Your task to perform on an android device: Go to CNN.com Image 0: 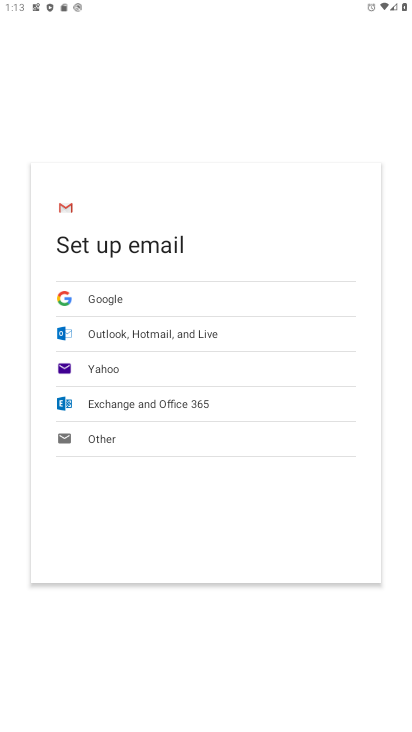
Step 0: press home button
Your task to perform on an android device: Go to CNN.com Image 1: 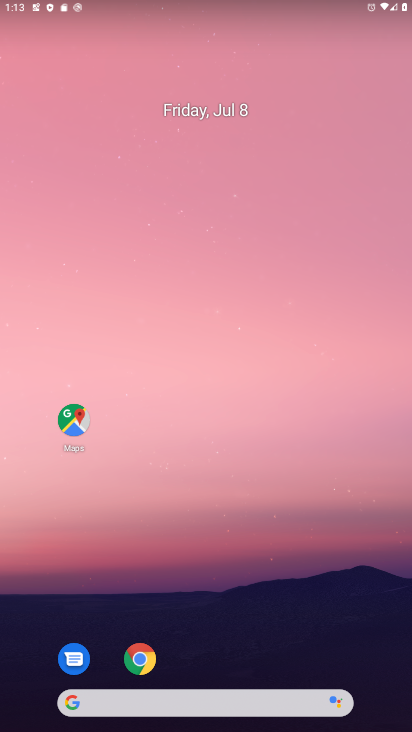
Step 1: click (210, 704)
Your task to perform on an android device: Go to CNN.com Image 2: 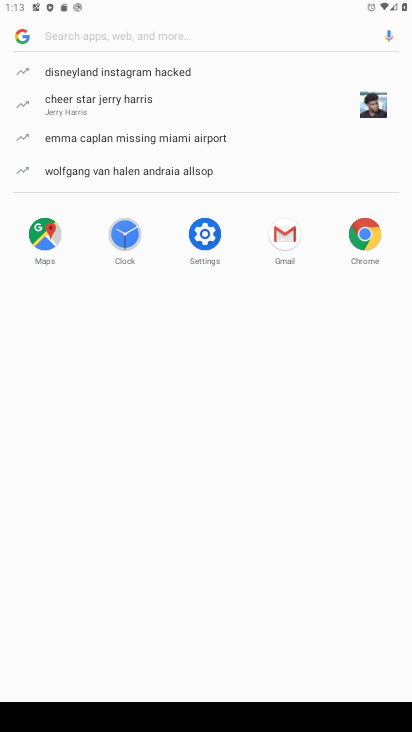
Step 2: type "cnn.com"
Your task to perform on an android device: Go to CNN.com Image 3: 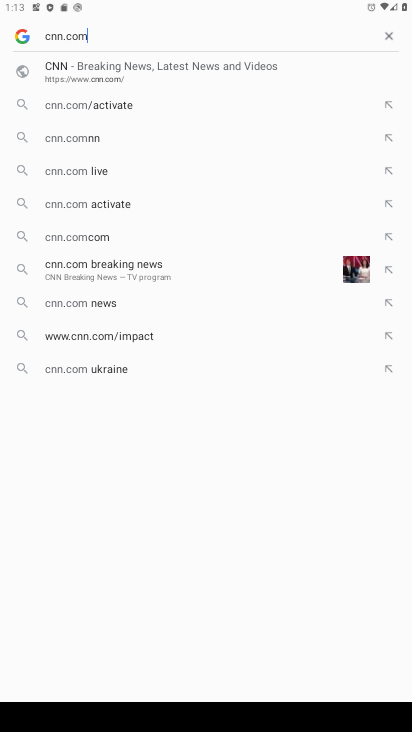
Step 3: click (93, 66)
Your task to perform on an android device: Go to CNN.com Image 4: 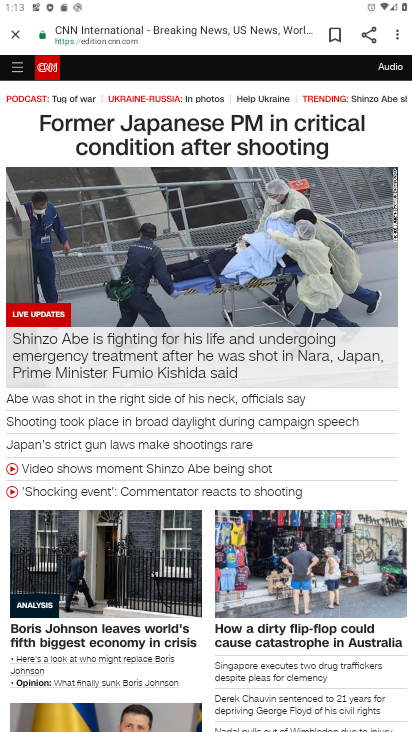
Step 4: task complete